Your task to perform on an android device: Search for vegetarian restaurants on Maps Image 0: 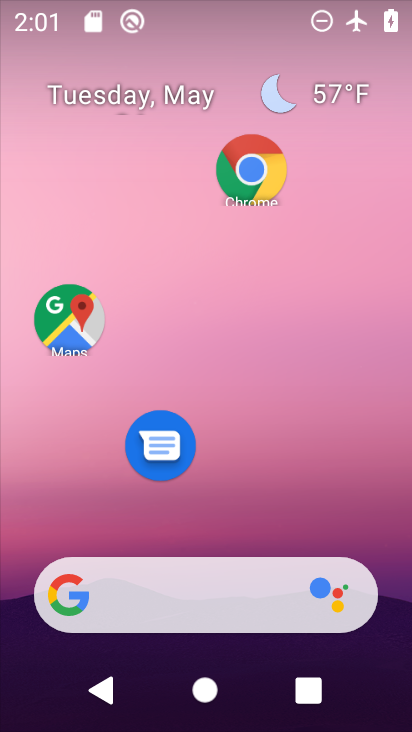
Step 0: drag from (231, 723) to (230, 204)
Your task to perform on an android device: Search for vegetarian restaurants on Maps Image 1: 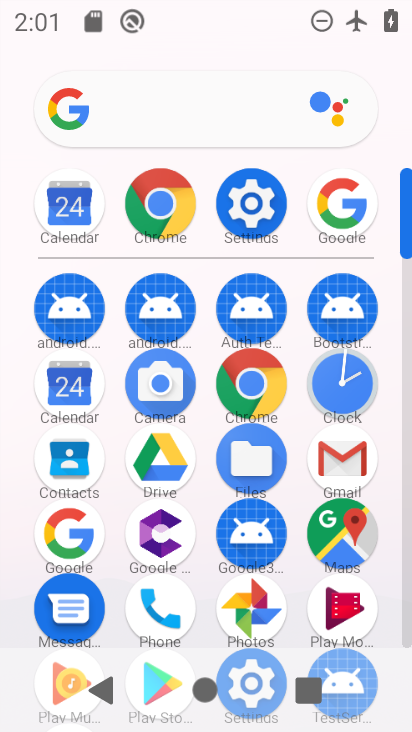
Step 1: click (340, 540)
Your task to perform on an android device: Search for vegetarian restaurants on Maps Image 2: 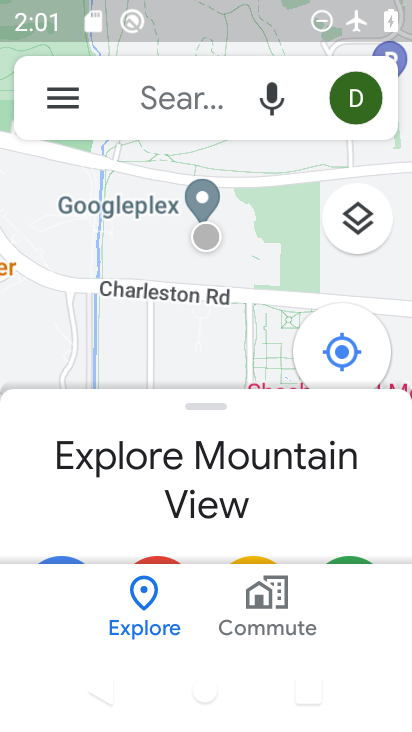
Step 2: click (186, 98)
Your task to perform on an android device: Search for vegetarian restaurants on Maps Image 3: 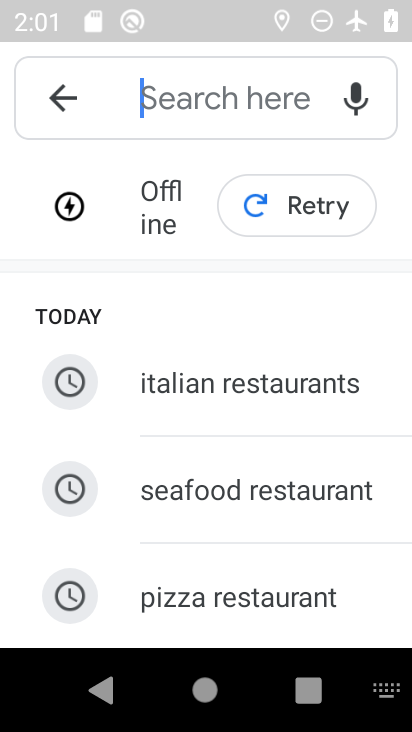
Step 3: type "vegetarian restaurants"
Your task to perform on an android device: Search for vegetarian restaurants on Maps Image 4: 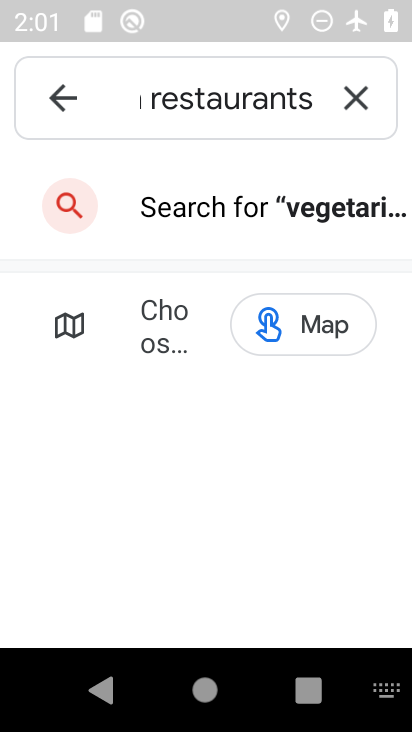
Step 4: click (318, 198)
Your task to perform on an android device: Search for vegetarian restaurants on Maps Image 5: 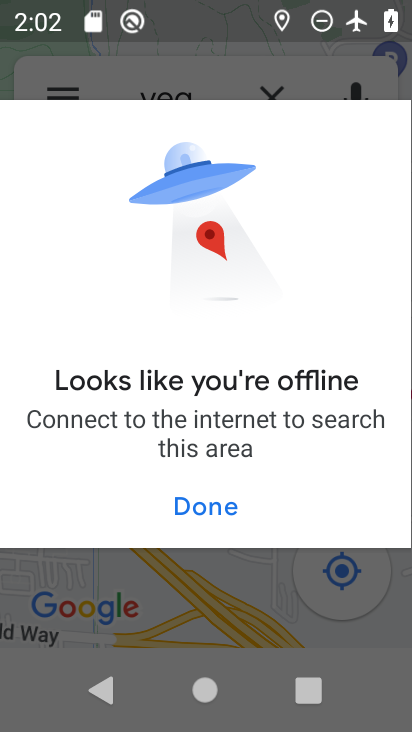
Step 5: task complete